Your task to perform on an android device: create a new album in the google photos Image 0: 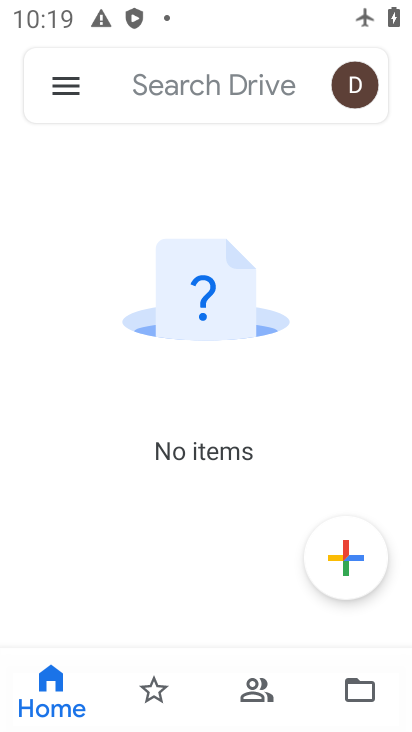
Step 0: press home button
Your task to perform on an android device: create a new album in the google photos Image 1: 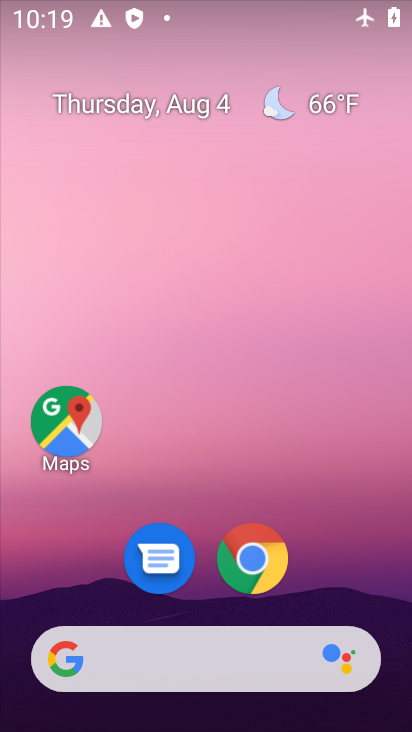
Step 1: drag from (297, 481) to (240, 85)
Your task to perform on an android device: create a new album in the google photos Image 2: 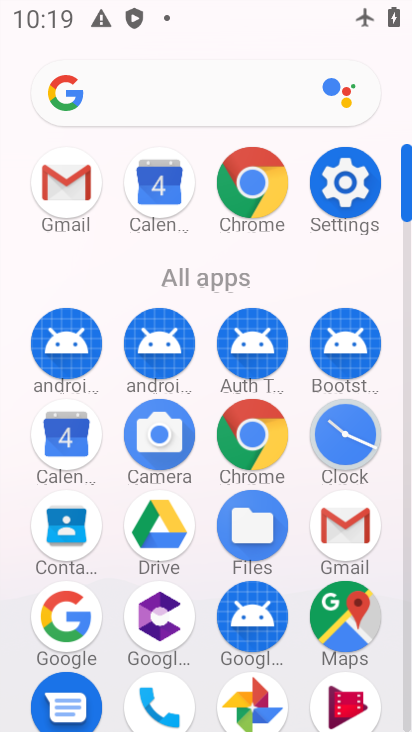
Step 2: drag from (199, 591) to (208, 369)
Your task to perform on an android device: create a new album in the google photos Image 3: 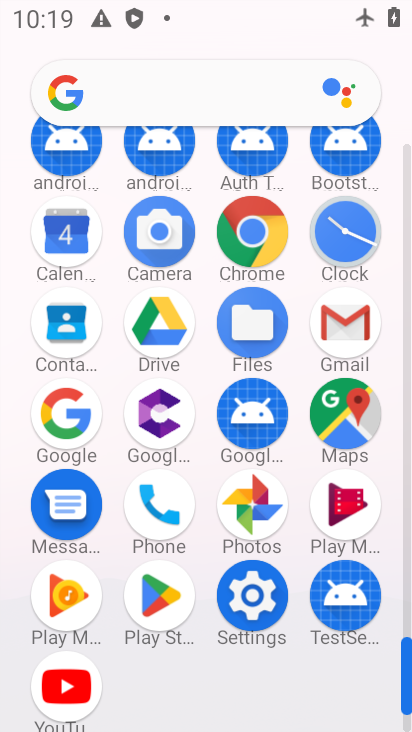
Step 3: click (262, 523)
Your task to perform on an android device: create a new album in the google photos Image 4: 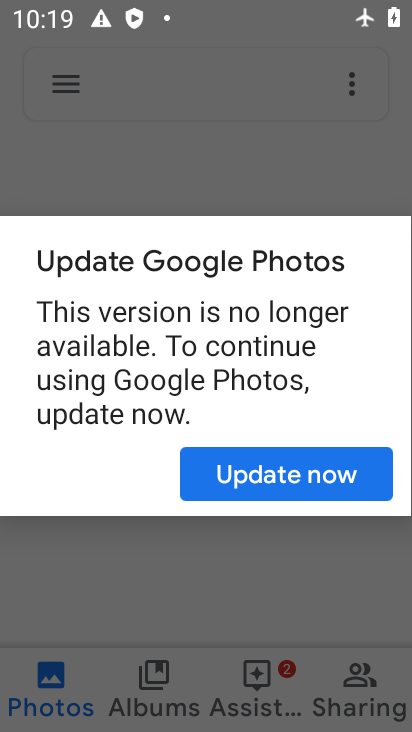
Step 4: click (163, 698)
Your task to perform on an android device: create a new album in the google photos Image 5: 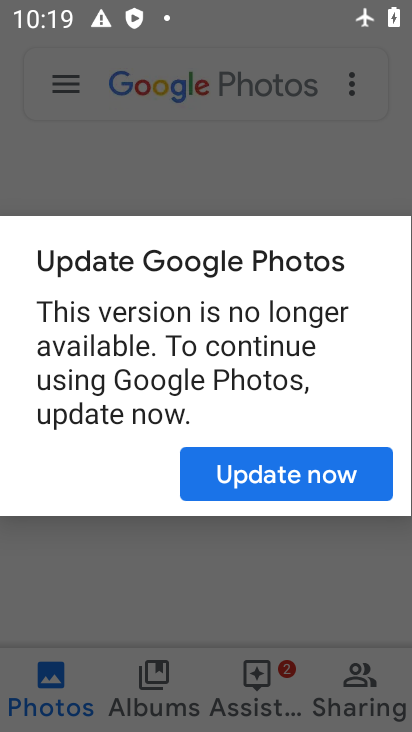
Step 5: click (344, 465)
Your task to perform on an android device: create a new album in the google photos Image 6: 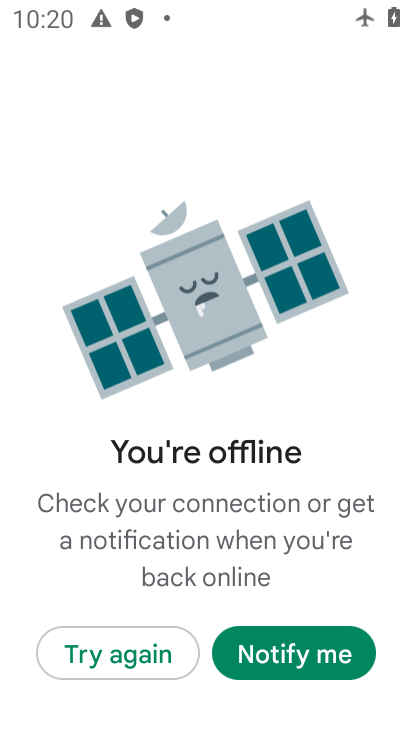
Step 6: task complete